Your task to perform on an android device: toggle improve location accuracy Image 0: 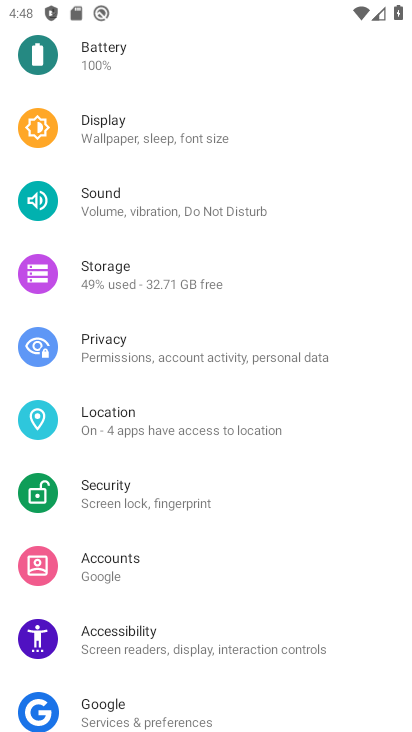
Step 0: click (127, 434)
Your task to perform on an android device: toggle improve location accuracy Image 1: 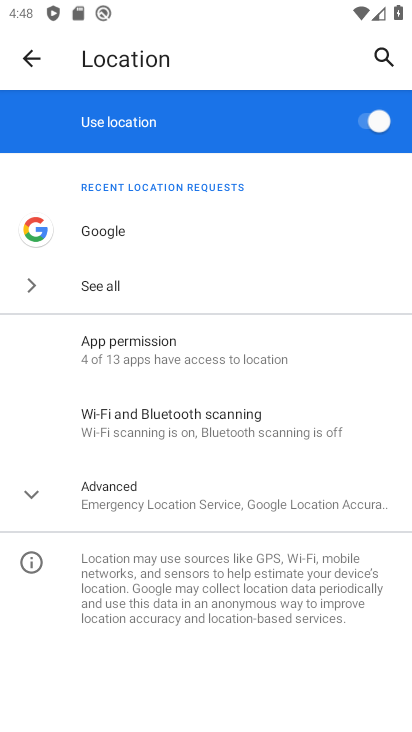
Step 1: click (153, 495)
Your task to perform on an android device: toggle improve location accuracy Image 2: 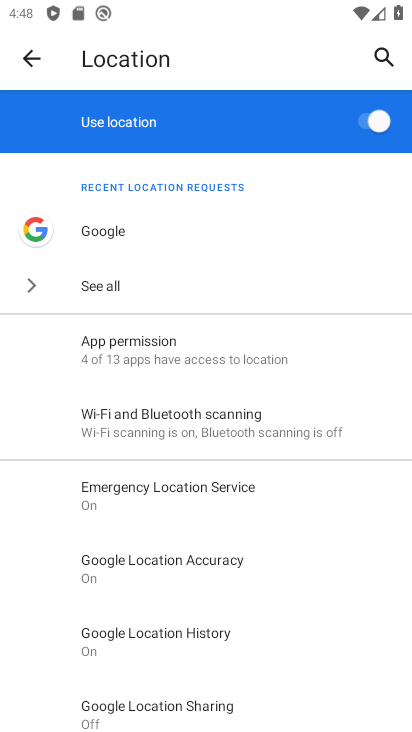
Step 2: click (169, 546)
Your task to perform on an android device: toggle improve location accuracy Image 3: 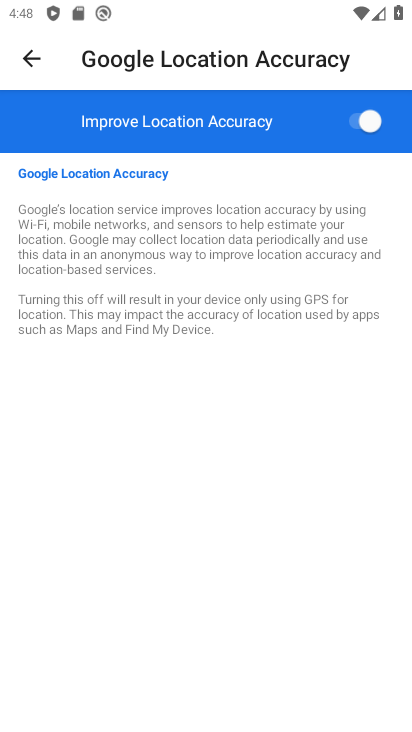
Step 3: click (362, 109)
Your task to perform on an android device: toggle improve location accuracy Image 4: 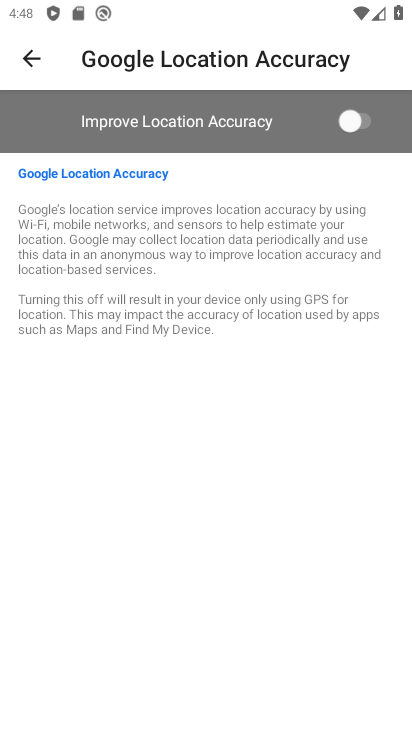
Step 4: task complete